Your task to perform on an android device: Open Chrome and go to the settings page Image 0: 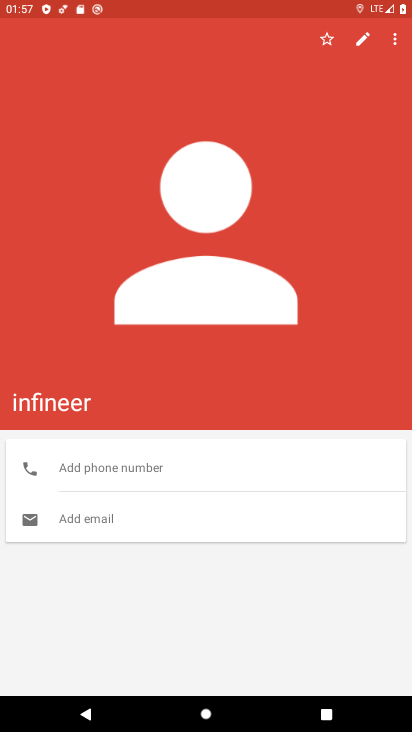
Step 0: press home button
Your task to perform on an android device: Open Chrome and go to the settings page Image 1: 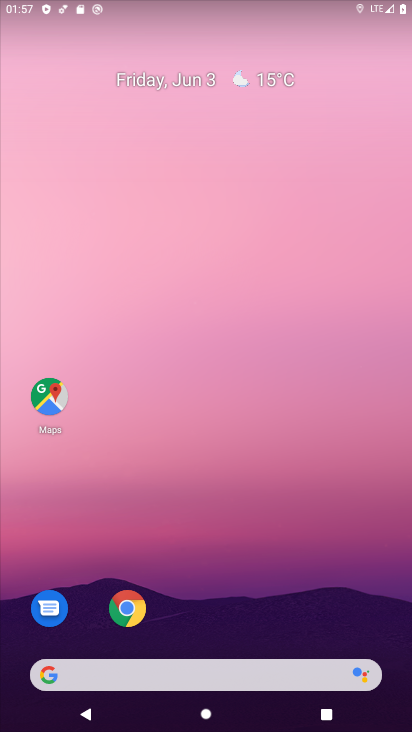
Step 1: click (127, 605)
Your task to perform on an android device: Open Chrome and go to the settings page Image 2: 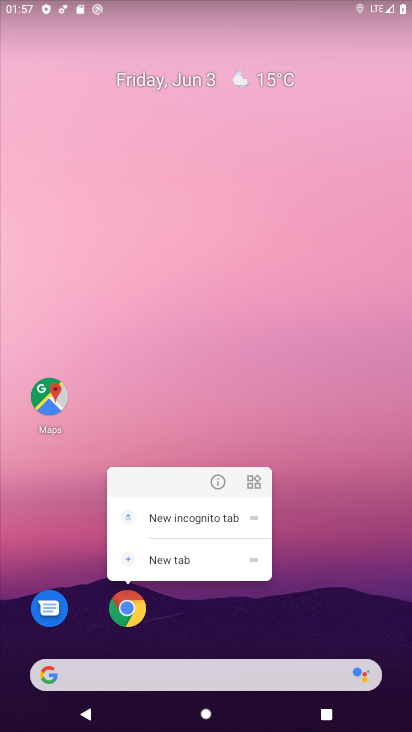
Step 2: click (128, 607)
Your task to perform on an android device: Open Chrome and go to the settings page Image 3: 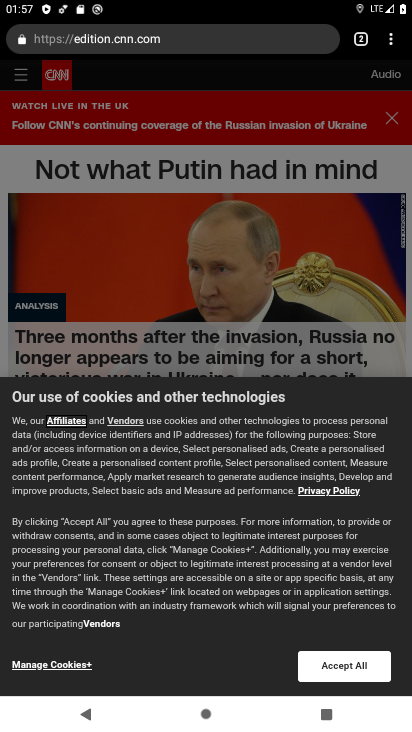
Step 3: task complete